Your task to perform on an android device: open the mobile data screen to see how much data has been used Image 0: 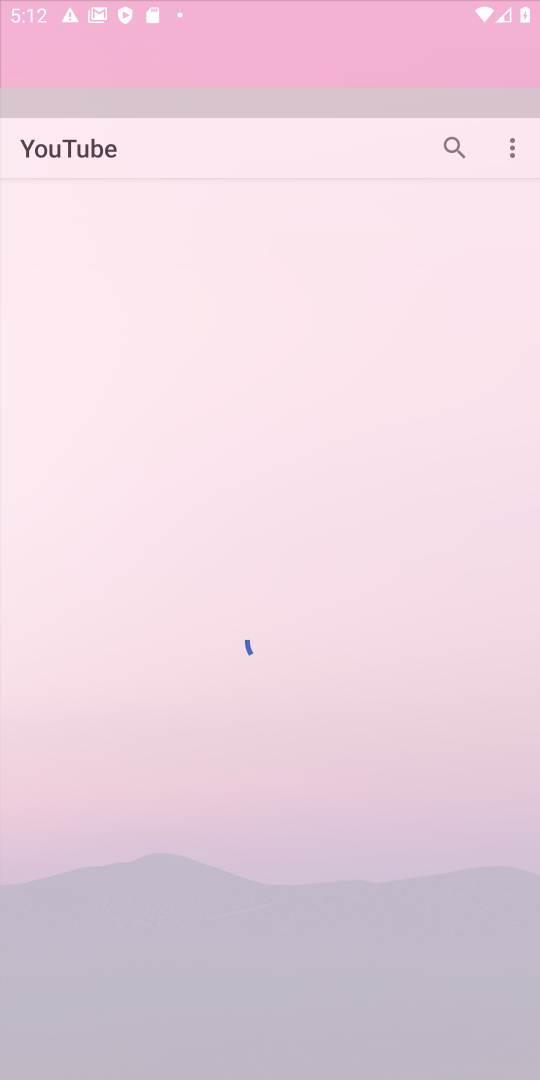
Step 0: press home button
Your task to perform on an android device: open the mobile data screen to see how much data has been used Image 1: 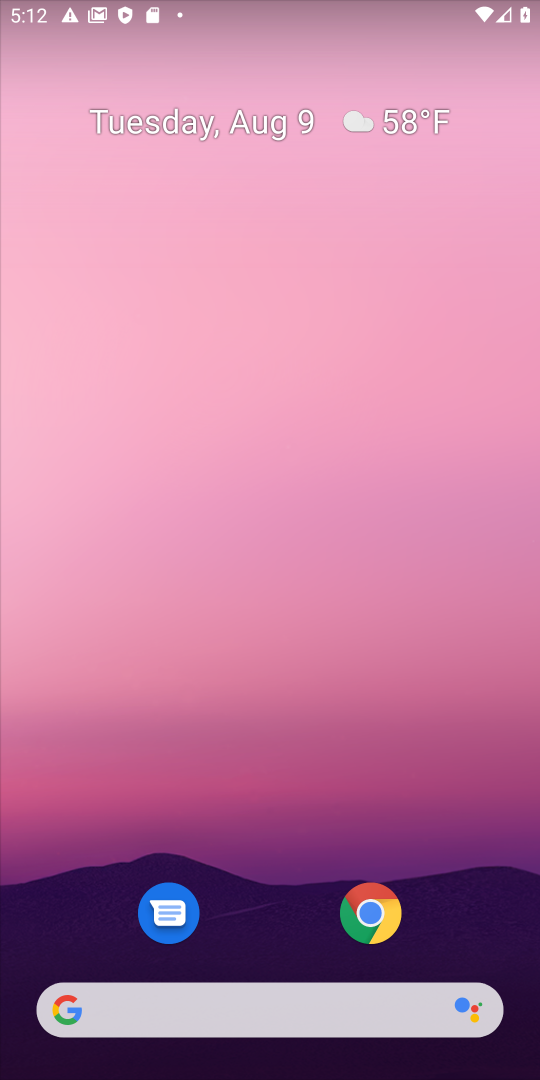
Step 1: drag from (275, 912) to (246, 291)
Your task to perform on an android device: open the mobile data screen to see how much data has been used Image 2: 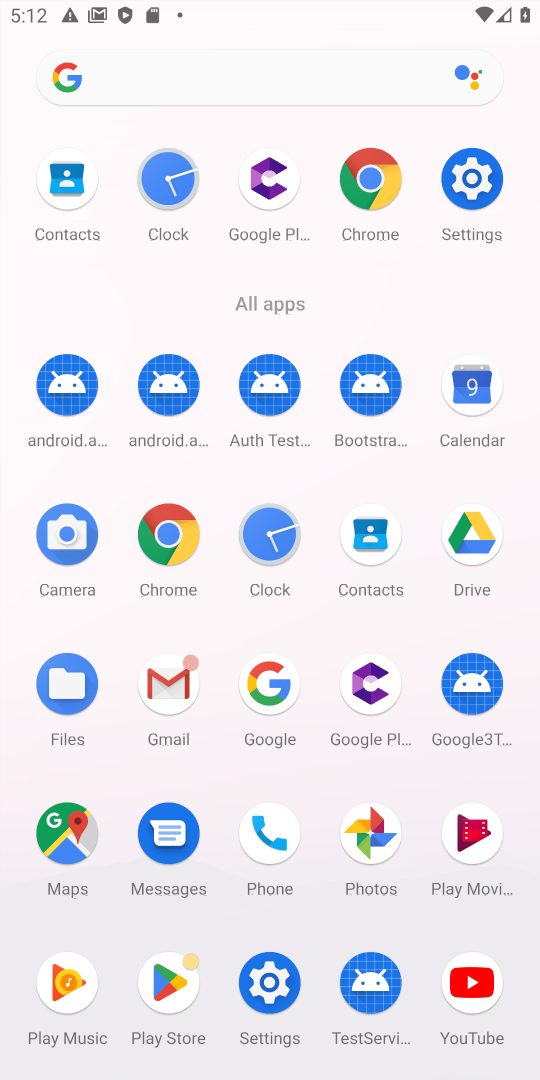
Step 2: click (462, 173)
Your task to perform on an android device: open the mobile data screen to see how much data has been used Image 3: 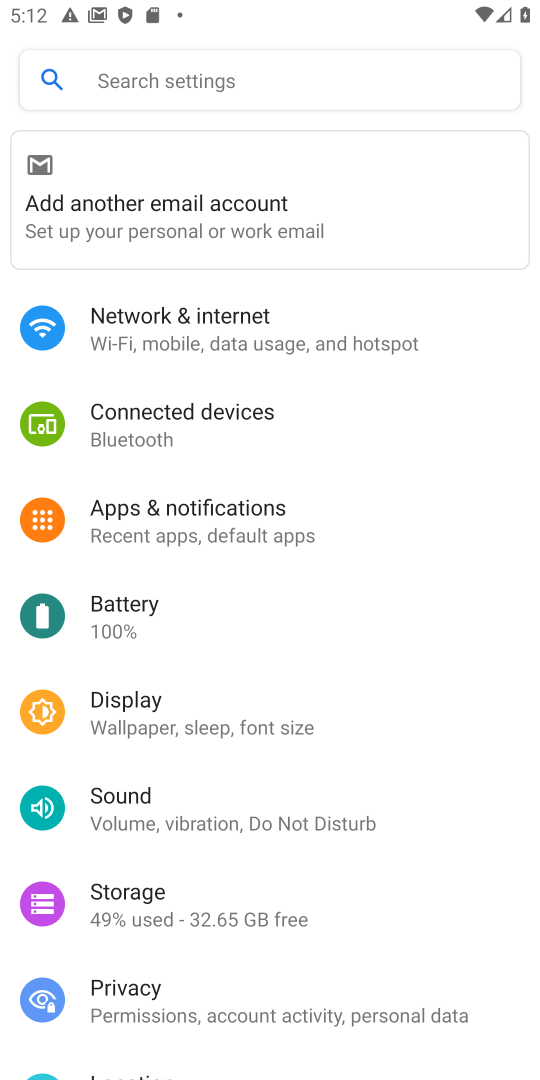
Step 3: click (200, 337)
Your task to perform on an android device: open the mobile data screen to see how much data has been used Image 4: 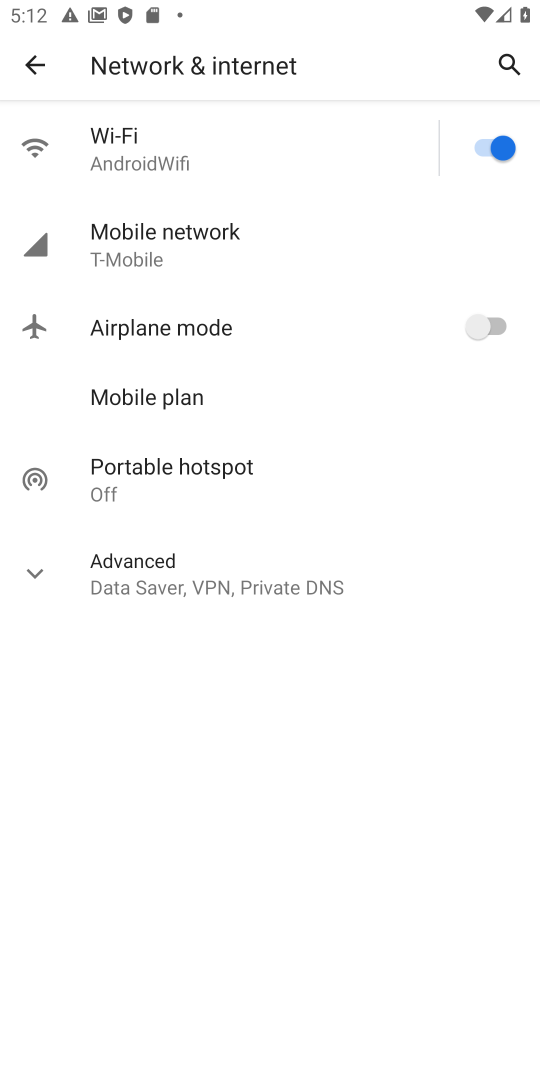
Step 4: click (146, 235)
Your task to perform on an android device: open the mobile data screen to see how much data has been used Image 5: 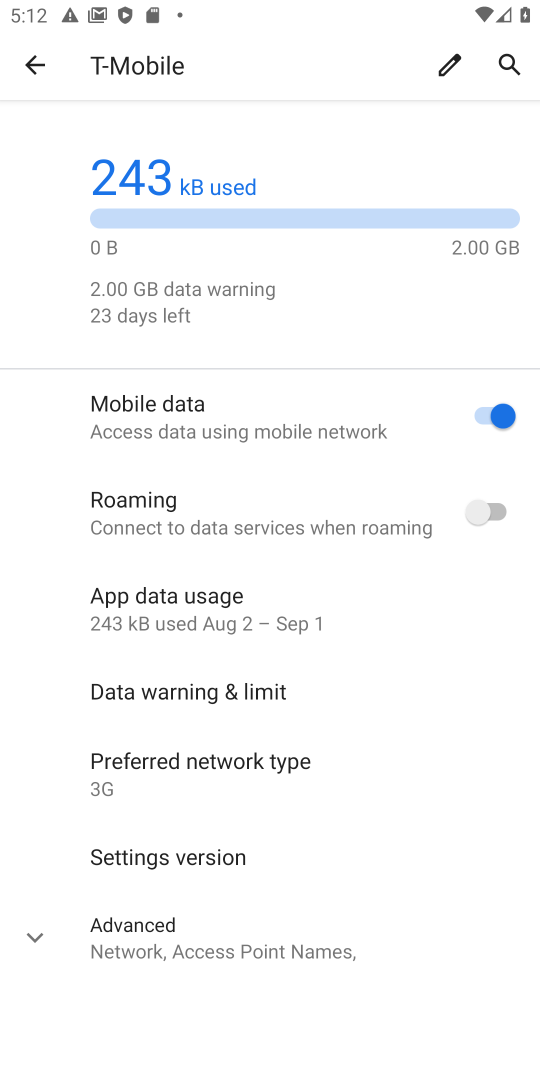
Step 5: click (303, 610)
Your task to perform on an android device: open the mobile data screen to see how much data has been used Image 6: 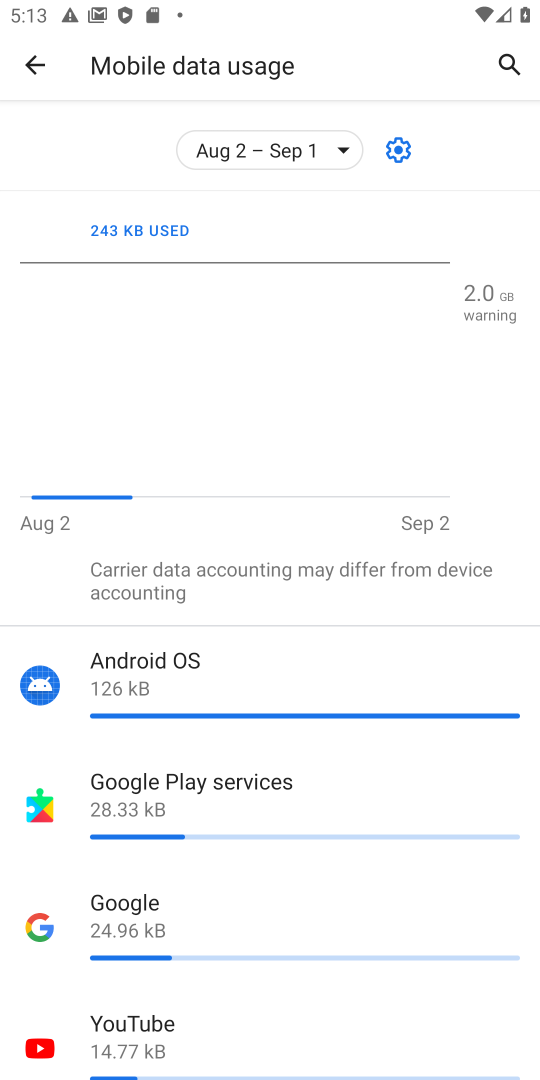
Step 6: task complete